Your task to perform on an android device: open wifi settings Image 0: 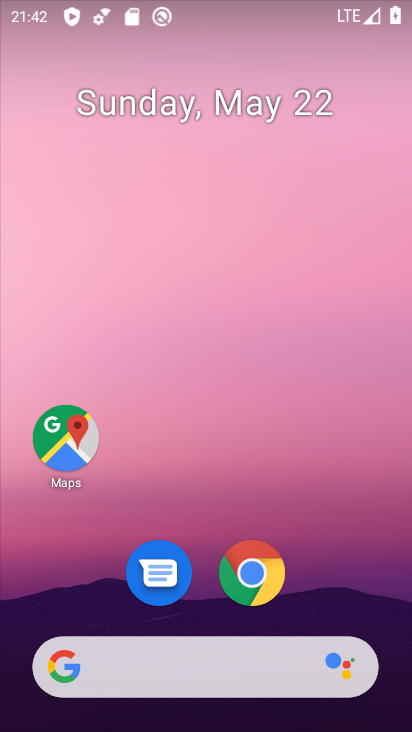
Step 0: press home button
Your task to perform on an android device: open wifi settings Image 1: 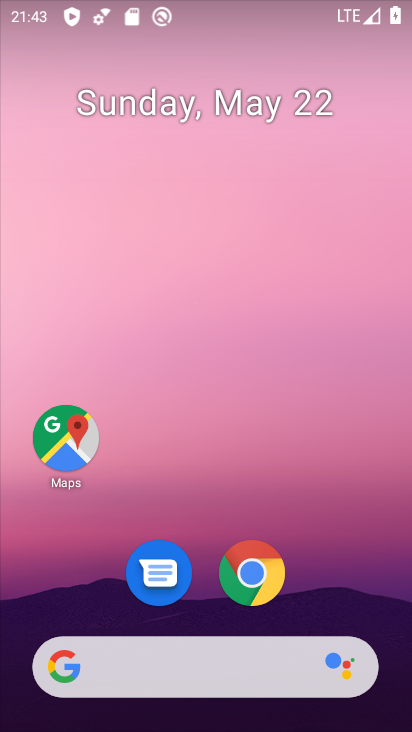
Step 1: drag from (282, 7) to (67, 728)
Your task to perform on an android device: open wifi settings Image 2: 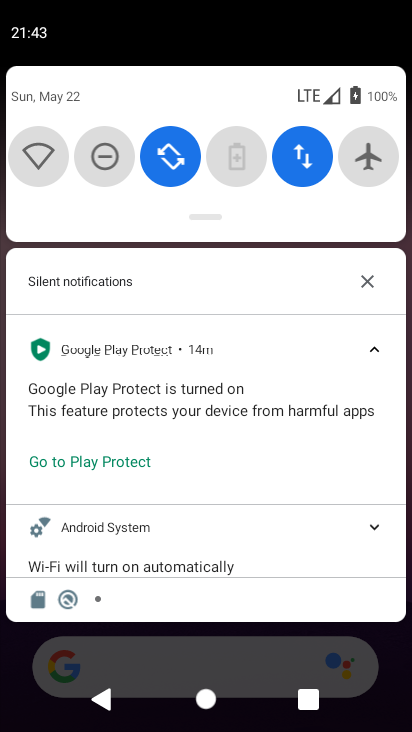
Step 2: click (30, 169)
Your task to perform on an android device: open wifi settings Image 3: 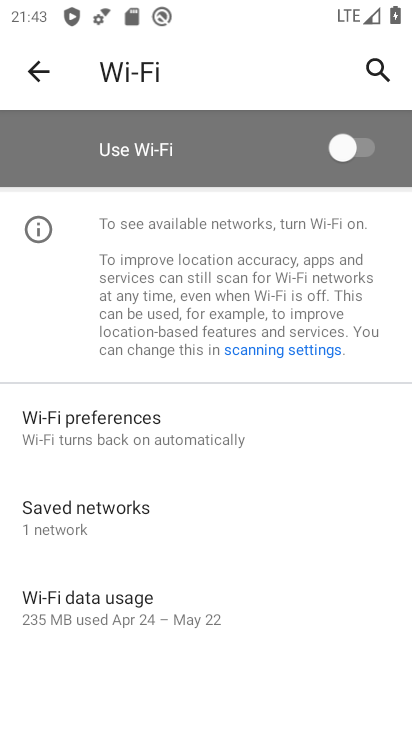
Step 3: task complete